Your task to perform on an android device: star an email in the gmail app Image 0: 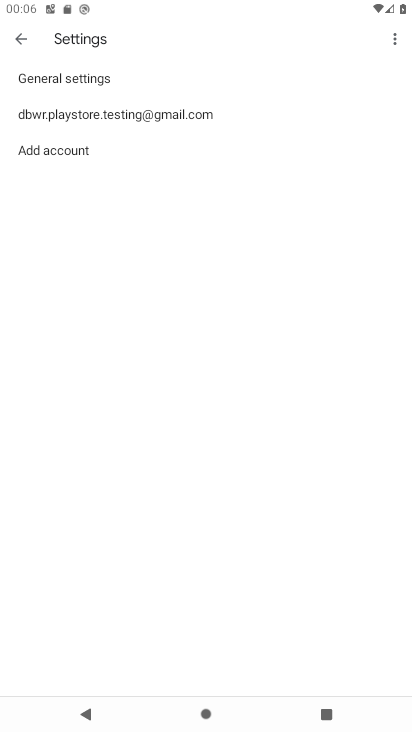
Step 0: press home button
Your task to perform on an android device: star an email in the gmail app Image 1: 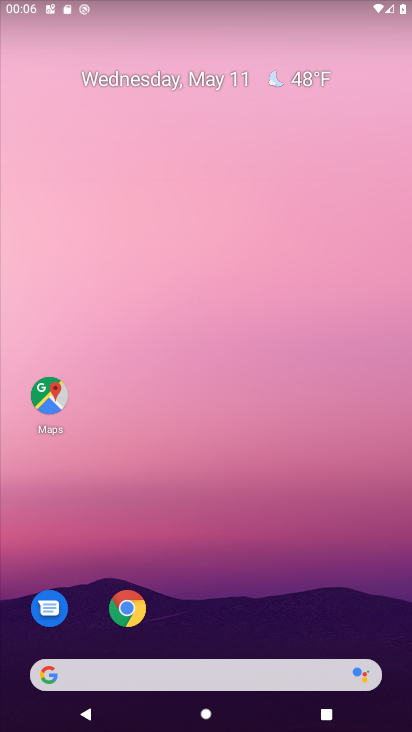
Step 1: drag from (217, 585) to (207, 309)
Your task to perform on an android device: star an email in the gmail app Image 2: 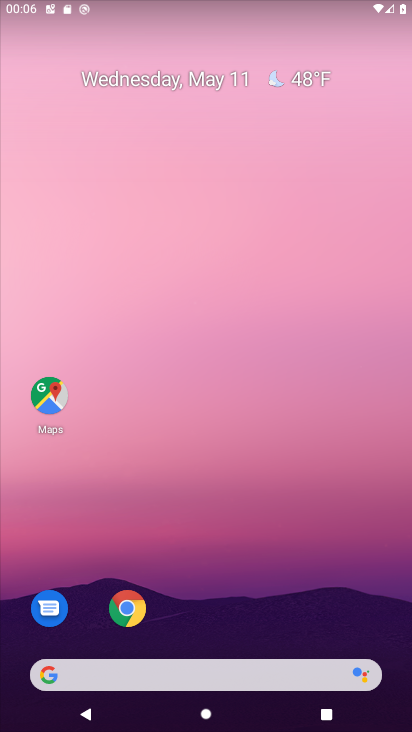
Step 2: drag from (237, 589) to (188, 310)
Your task to perform on an android device: star an email in the gmail app Image 3: 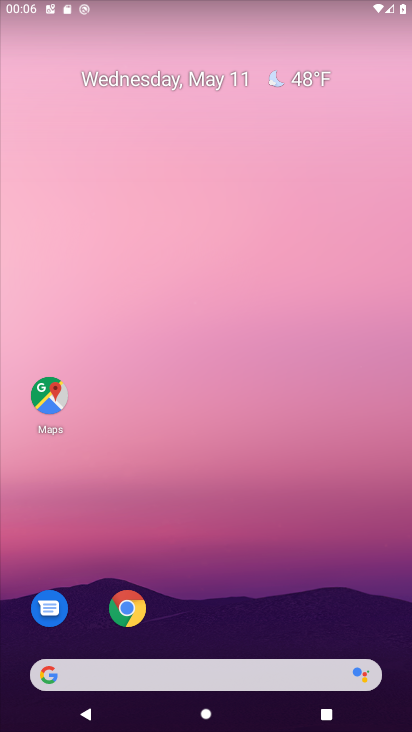
Step 3: drag from (207, 621) to (223, 266)
Your task to perform on an android device: star an email in the gmail app Image 4: 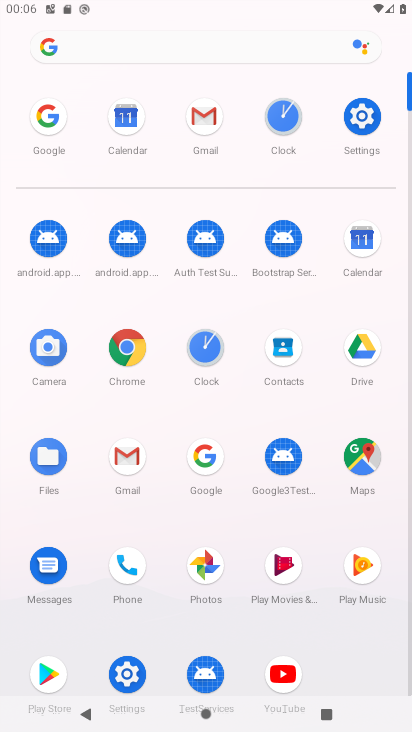
Step 4: click (203, 156)
Your task to perform on an android device: star an email in the gmail app Image 5: 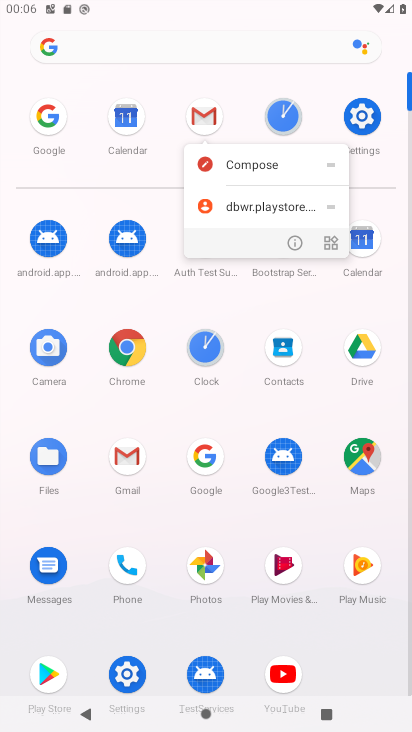
Step 5: click (209, 131)
Your task to perform on an android device: star an email in the gmail app Image 6: 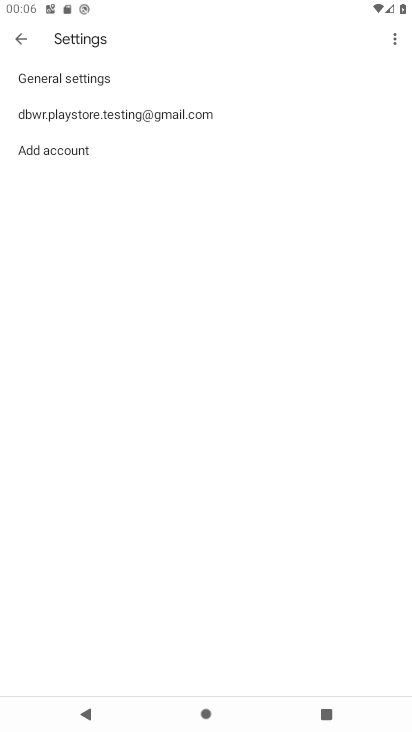
Step 6: press back button
Your task to perform on an android device: star an email in the gmail app Image 7: 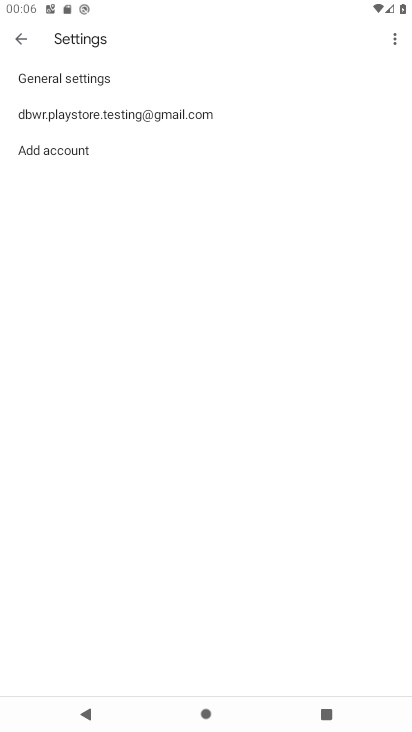
Step 7: press back button
Your task to perform on an android device: star an email in the gmail app Image 8: 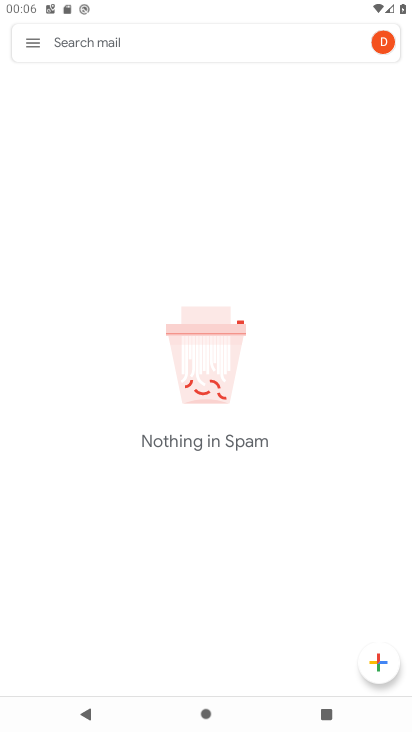
Step 8: click (34, 40)
Your task to perform on an android device: star an email in the gmail app Image 9: 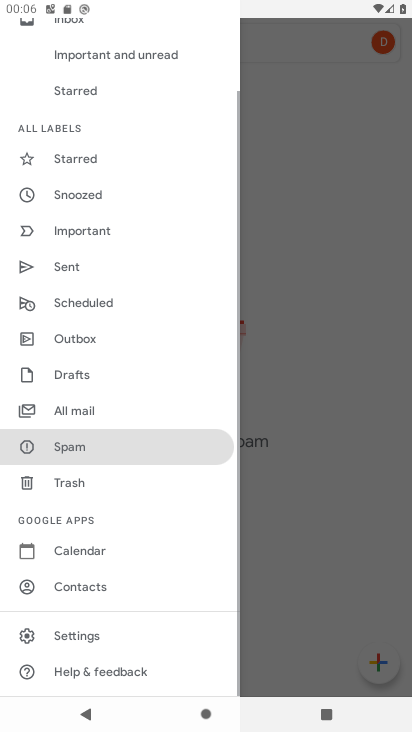
Step 9: drag from (111, 167) to (111, 275)
Your task to perform on an android device: star an email in the gmail app Image 10: 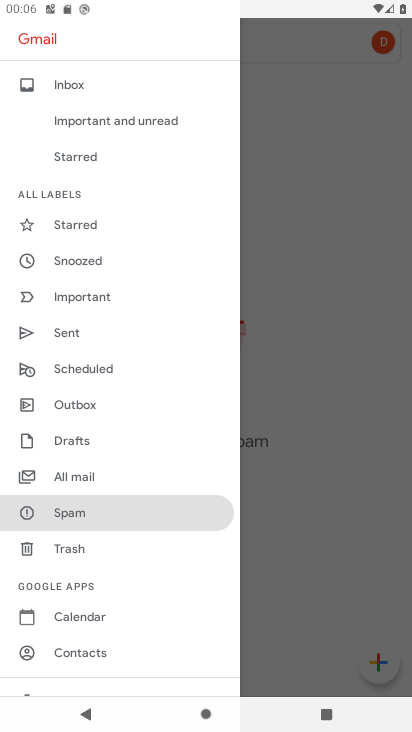
Step 10: click (77, 78)
Your task to perform on an android device: star an email in the gmail app Image 11: 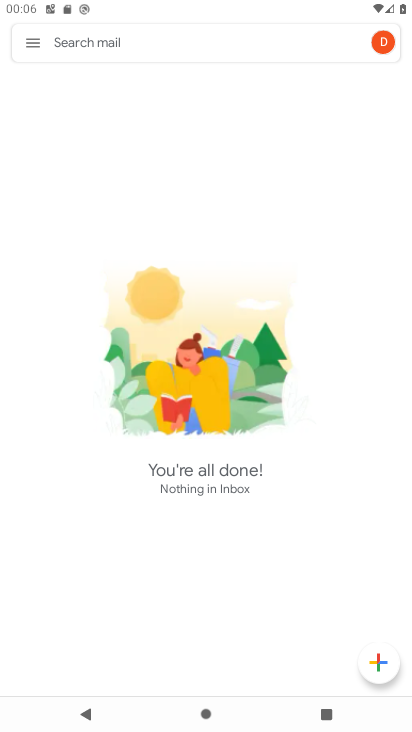
Step 11: task complete